Your task to perform on an android device: View the shopping cart on costco. Add bose soundlink to the cart on costco, then select checkout. Image 0: 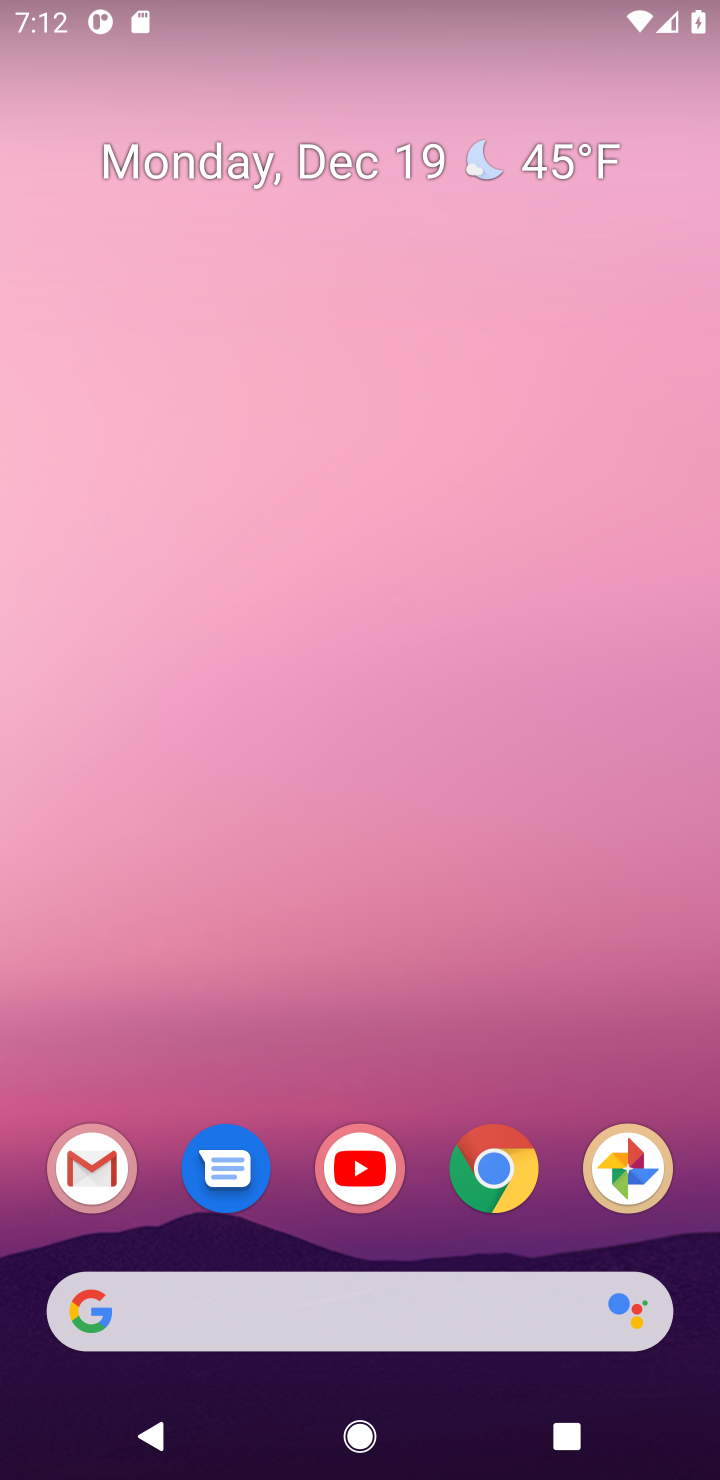
Step 0: click (486, 1177)
Your task to perform on an android device: View the shopping cart on costco. Add bose soundlink to the cart on costco, then select checkout. Image 1: 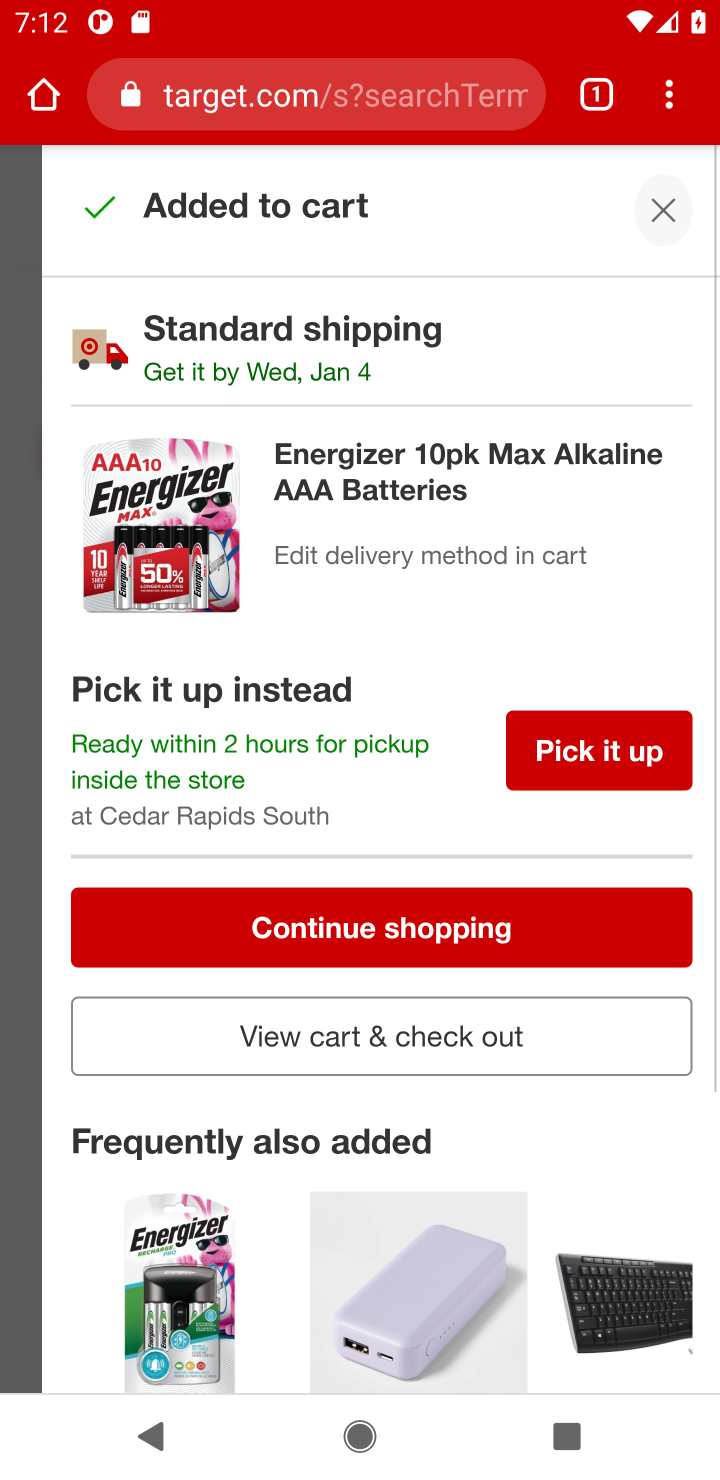
Step 1: click (301, 109)
Your task to perform on an android device: View the shopping cart on costco. Add bose soundlink to the cart on costco, then select checkout. Image 2: 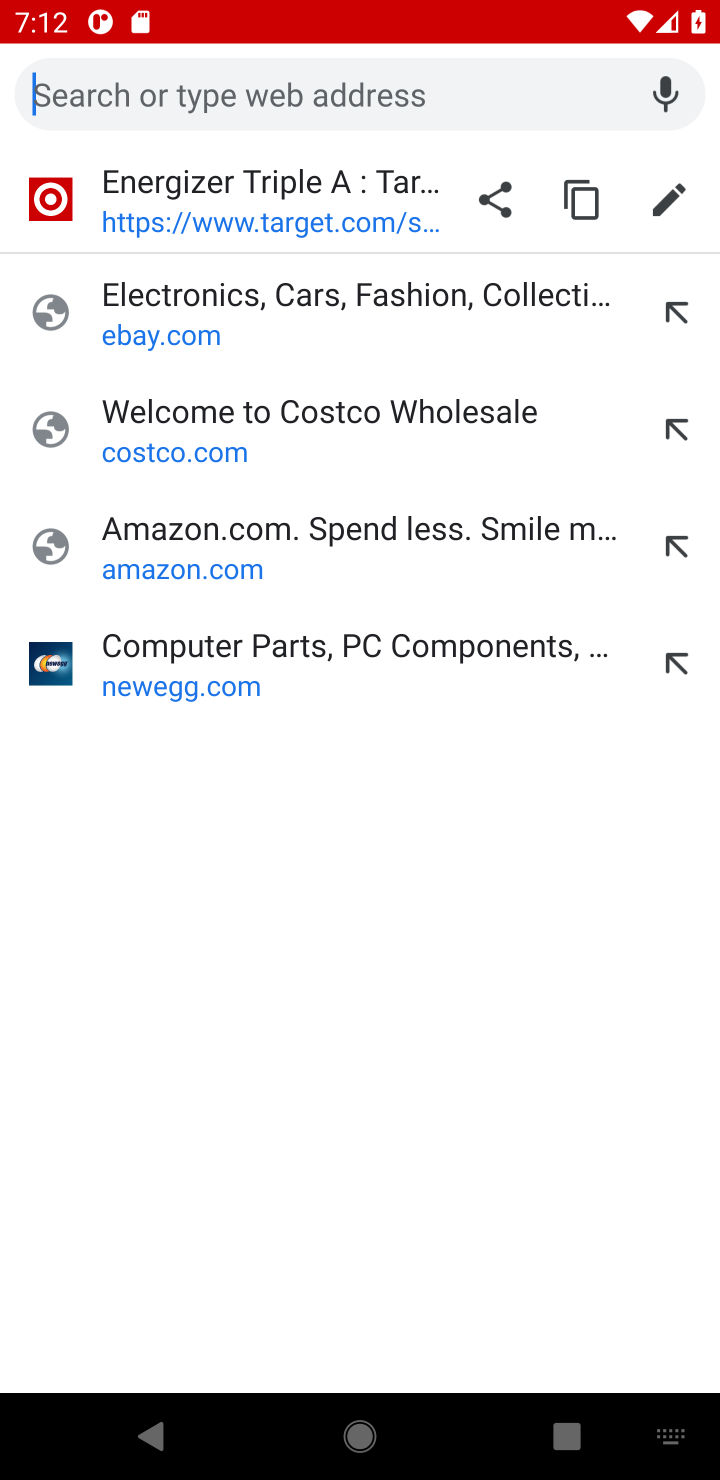
Step 2: click (175, 410)
Your task to perform on an android device: View the shopping cart on costco. Add bose soundlink to the cart on costco, then select checkout. Image 3: 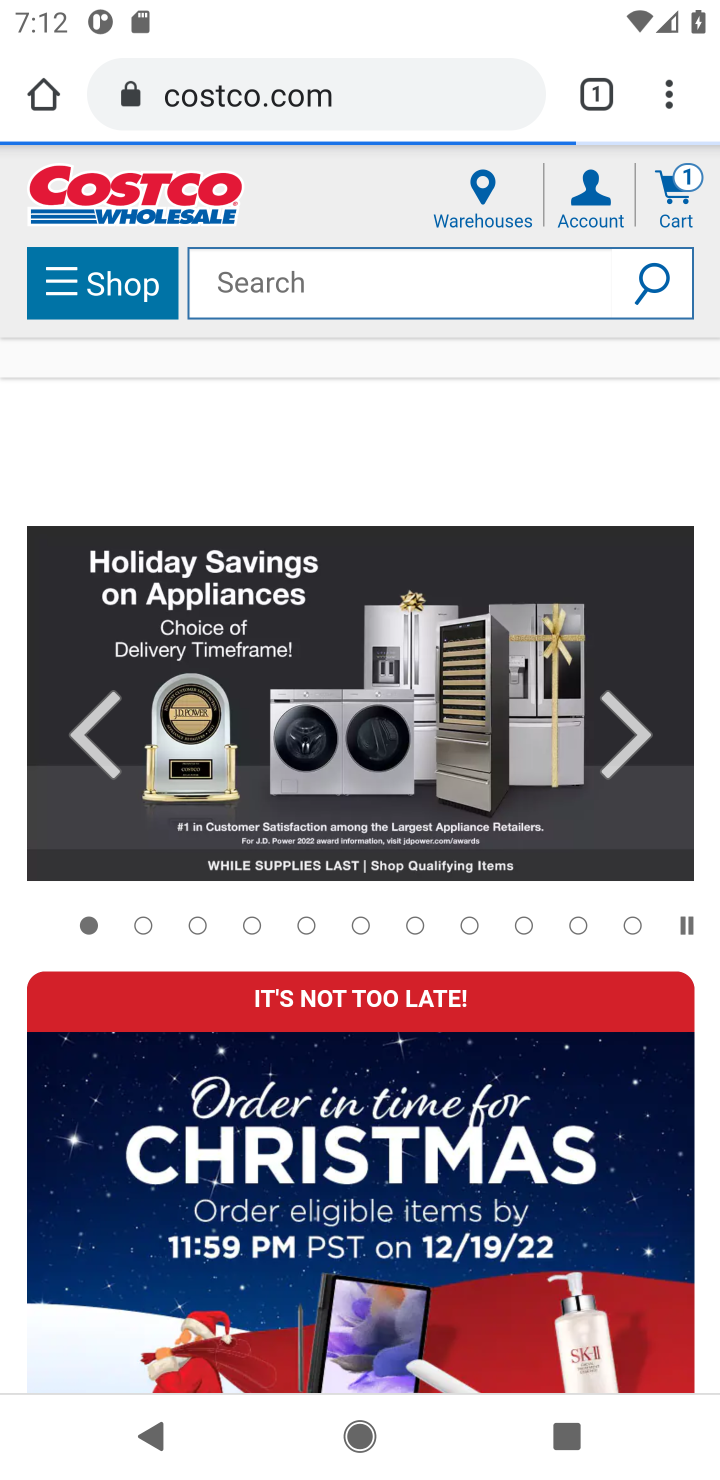
Step 3: click (672, 209)
Your task to perform on an android device: View the shopping cart on costco. Add bose soundlink to the cart on costco, then select checkout. Image 4: 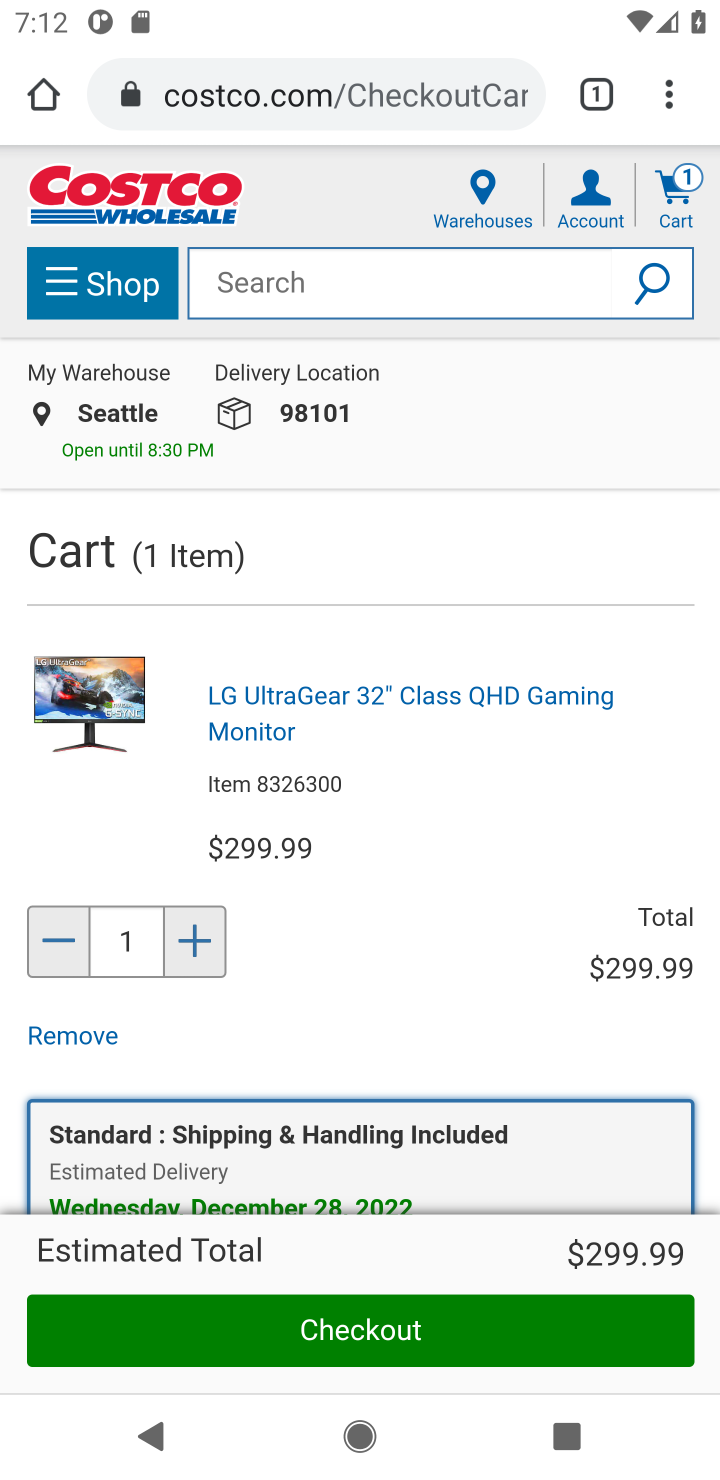
Step 4: click (238, 295)
Your task to perform on an android device: View the shopping cart on costco. Add bose soundlink to the cart on costco, then select checkout. Image 5: 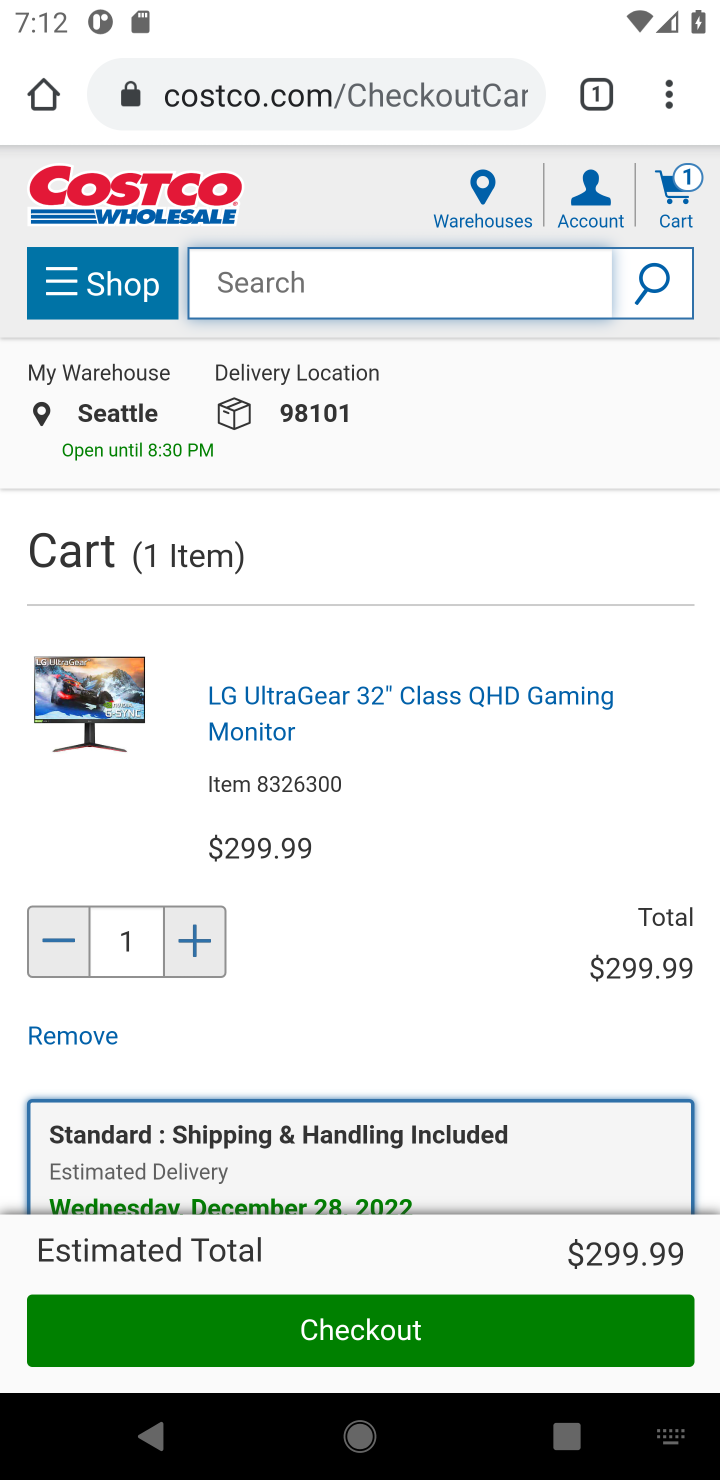
Step 5: type "bose soundlink"
Your task to perform on an android device: View the shopping cart on costco. Add bose soundlink to the cart on costco, then select checkout. Image 6: 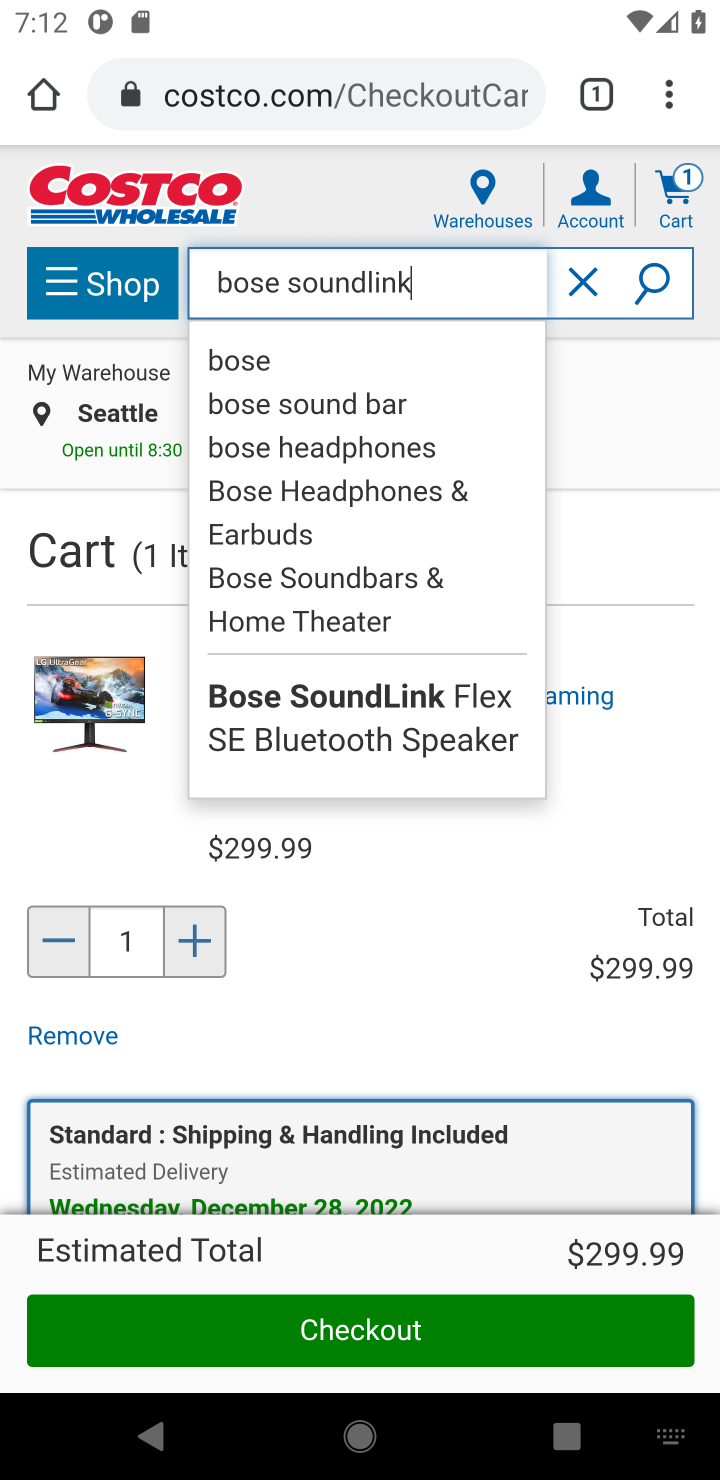
Step 6: click (646, 281)
Your task to perform on an android device: View the shopping cart on costco. Add bose soundlink to the cart on costco, then select checkout. Image 7: 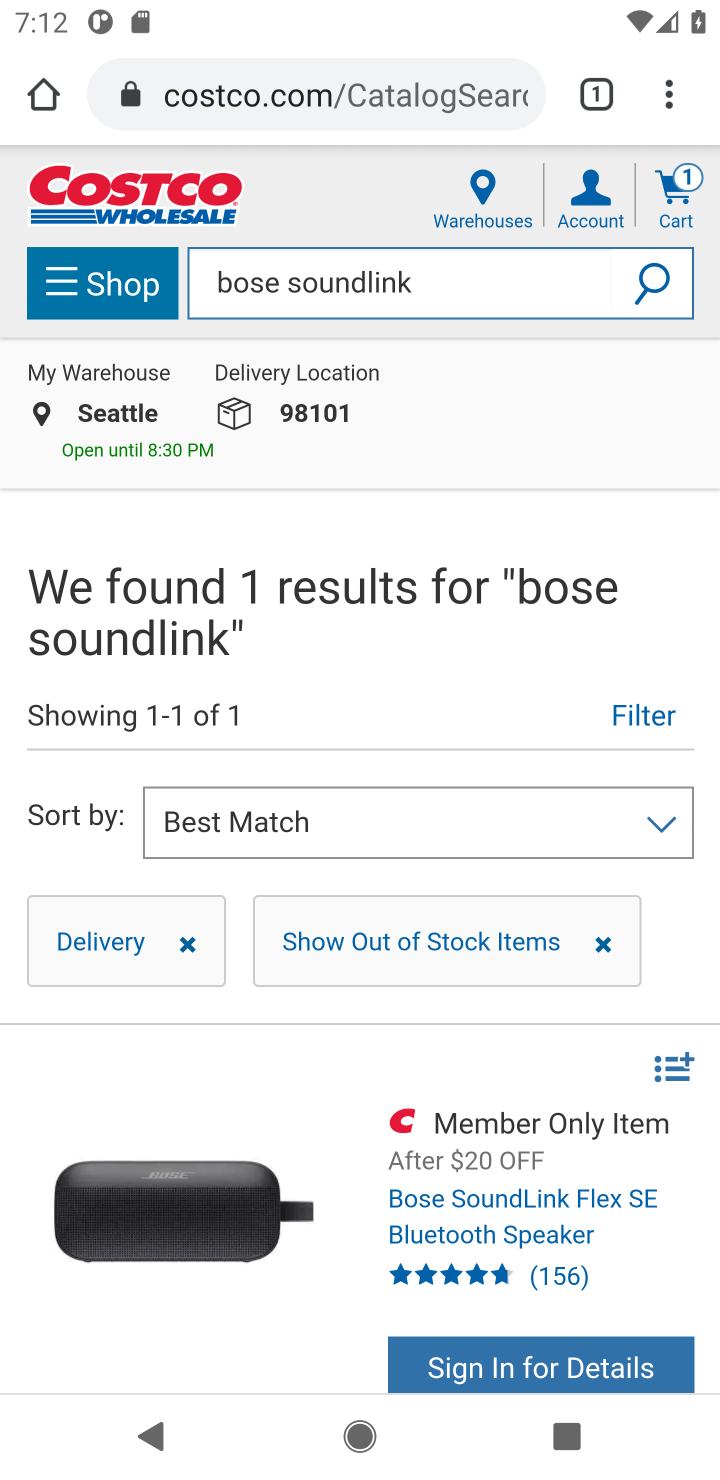
Step 7: drag from (316, 973) to (367, 537)
Your task to perform on an android device: View the shopping cart on costco. Add bose soundlink to the cart on costco, then select checkout. Image 8: 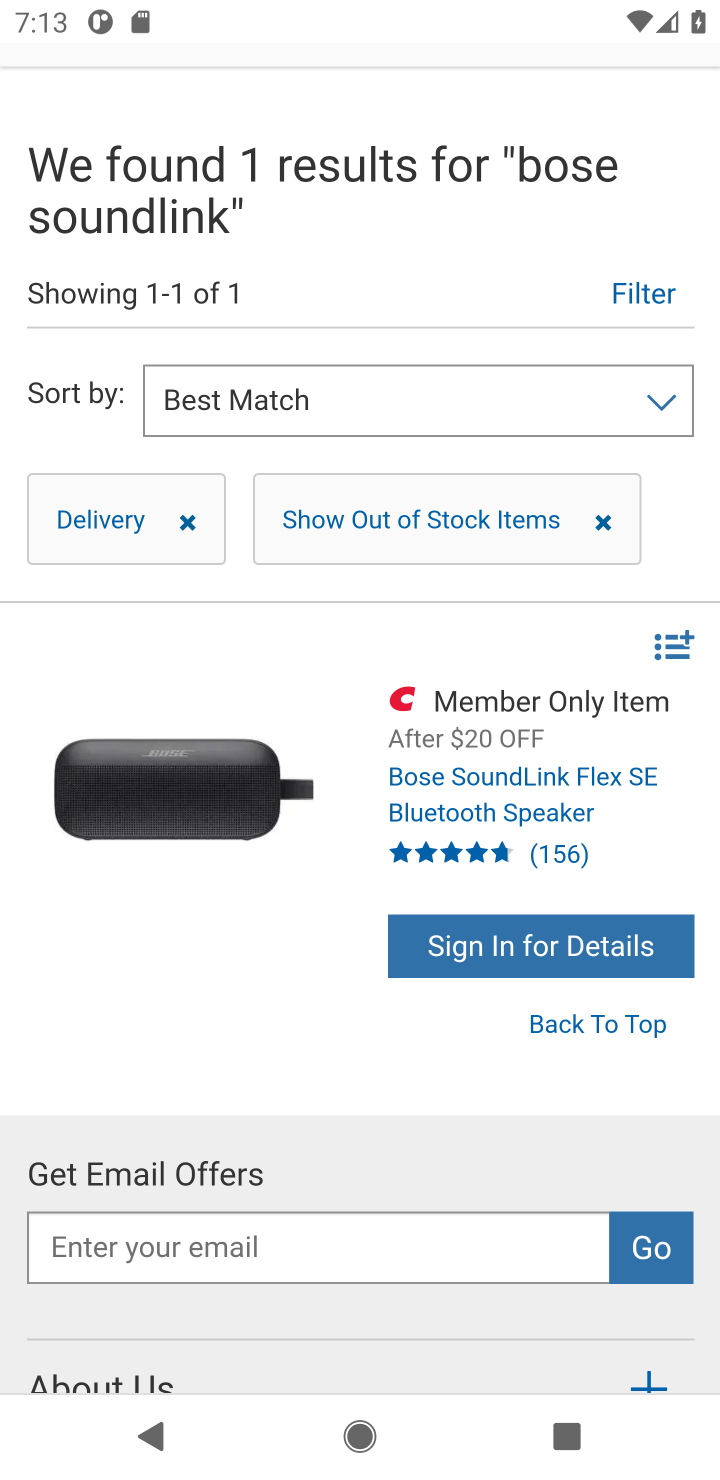
Step 8: click (527, 789)
Your task to perform on an android device: View the shopping cart on costco. Add bose soundlink to the cart on costco, then select checkout. Image 9: 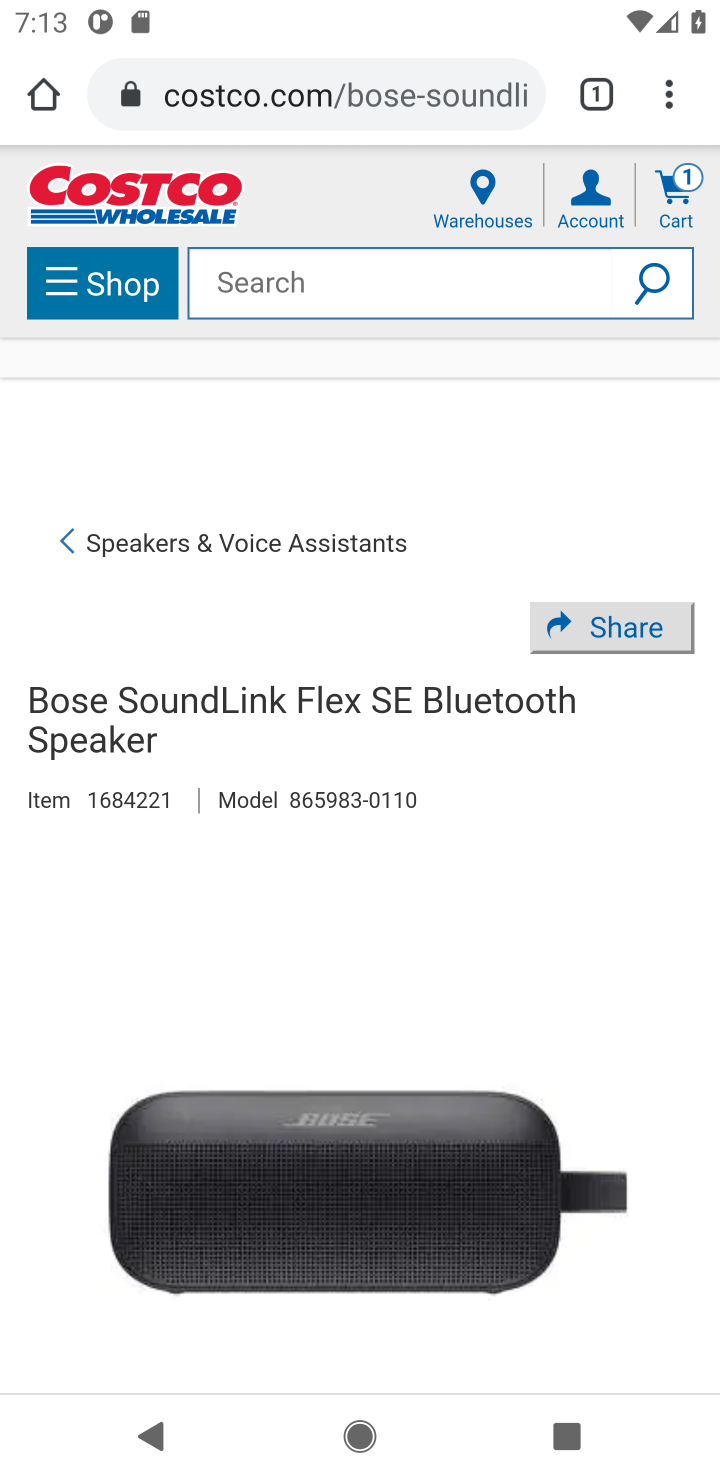
Step 9: task complete